Your task to perform on an android device: clear all cookies in the chrome app Image 0: 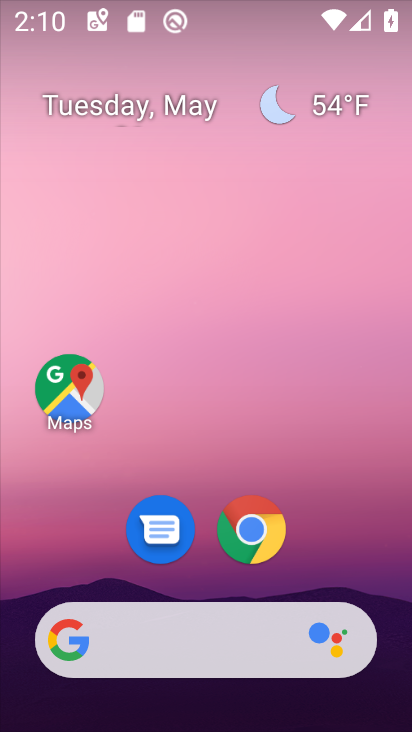
Step 0: drag from (312, 555) to (345, 214)
Your task to perform on an android device: clear all cookies in the chrome app Image 1: 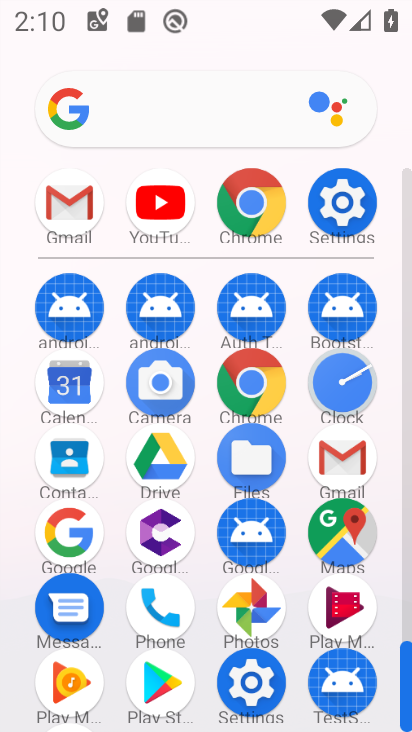
Step 1: click (241, 199)
Your task to perform on an android device: clear all cookies in the chrome app Image 2: 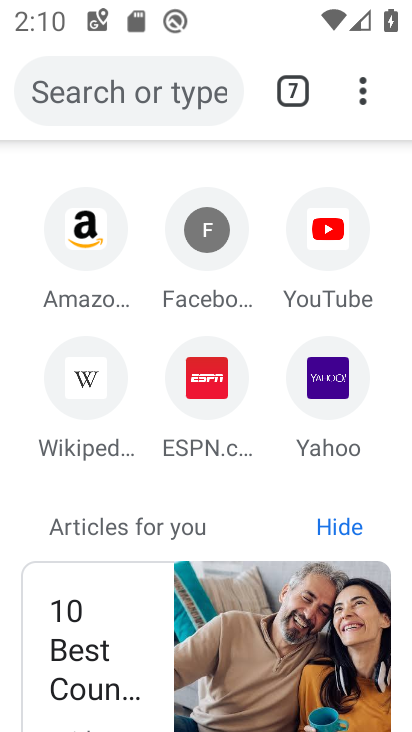
Step 2: click (362, 81)
Your task to perform on an android device: clear all cookies in the chrome app Image 3: 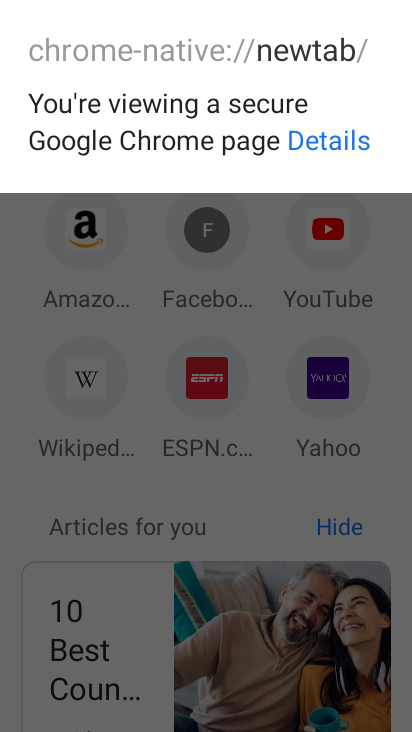
Step 3: click (367, 249)
Your task to perform on an android device: clear all cookies in the chrome app Image 4: 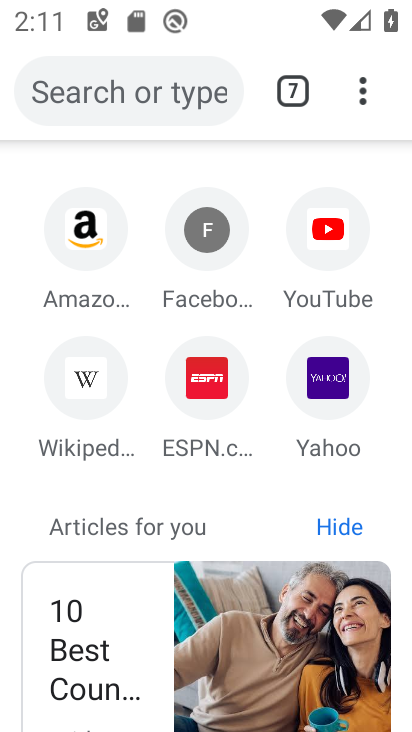
Step 4: click (369, 89)
Your task to perform on an android device: clear all cookies in the chrome app Image 5: 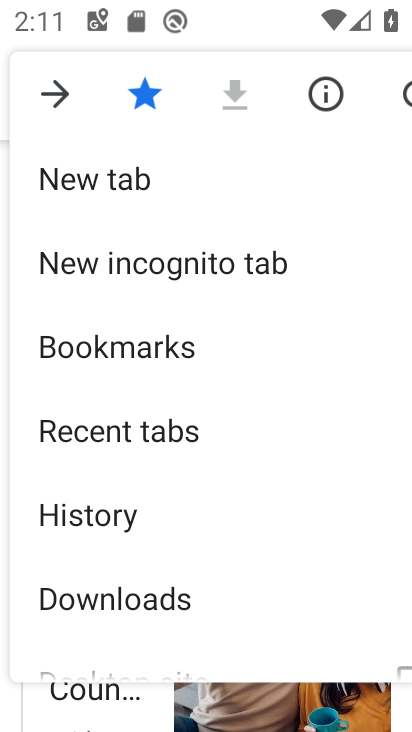
Step 5: drag from (238, 553) to (255, 256)
Your task to perform on an android device: clear all cookies in the chrome app Image 6: 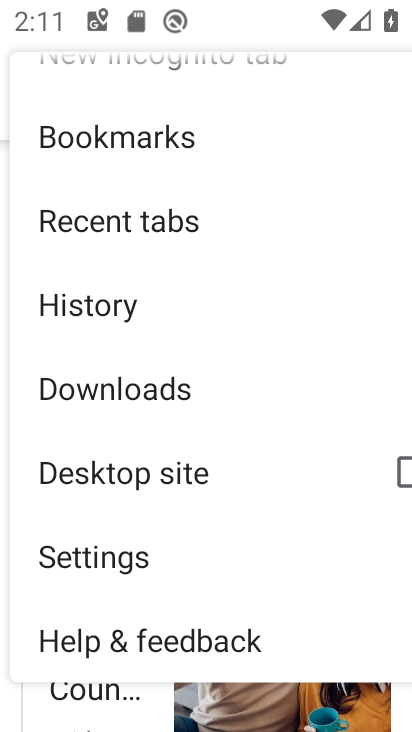
Step 6: click (197, 536)
Your task to perform on an android device: clear all cookies in the chrome app Image 7: 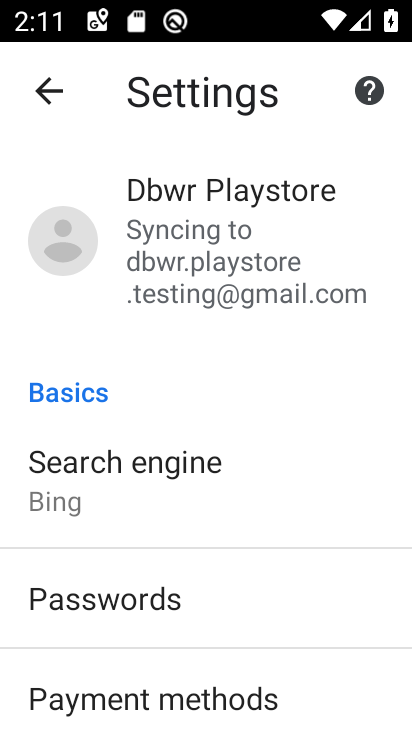
Step 7: drag from (242, 581) to (251, 309)
Your task to perform on an android device: clear all cookies in the chrome app Image 8: 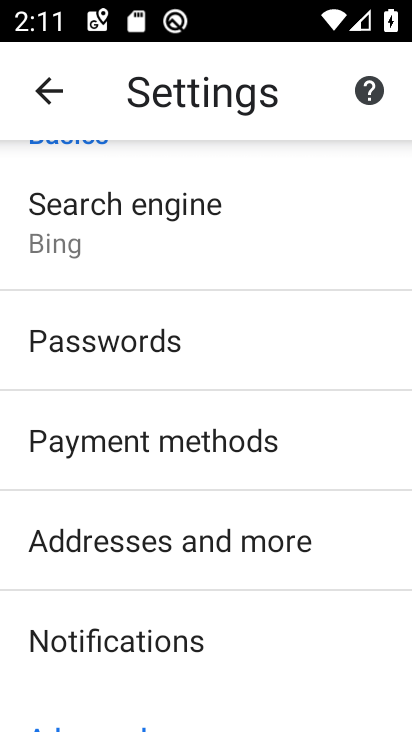
Step 8: drag from (212, 649) to (233, 425)
Your task to perform on an android device: clear all cookies in the chrome app Image 9: 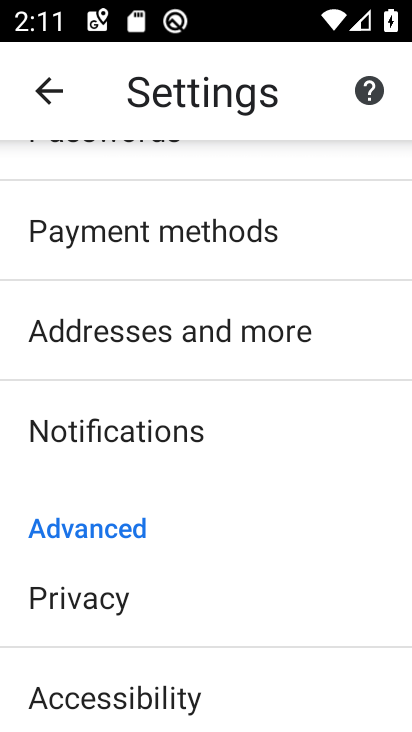
Step 9: drag from (187, 656) to (238, 283)
Your task to perform on an android device: clear all cookies in the chrome app Image 10: 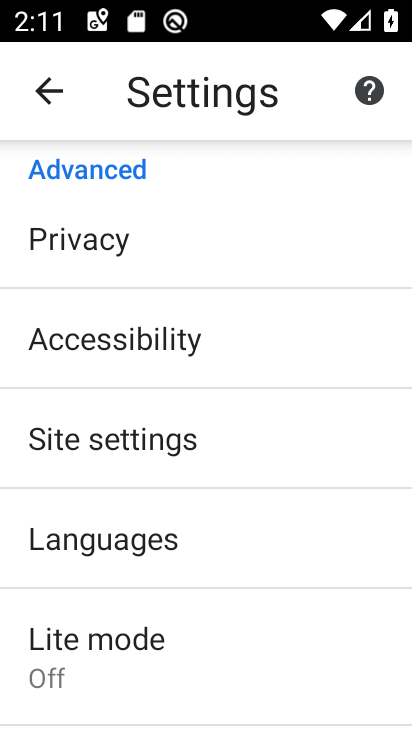
Step 10: click (146, 425)
Your task to perform on an android device: clear all cookies in the chrome app Image 11: 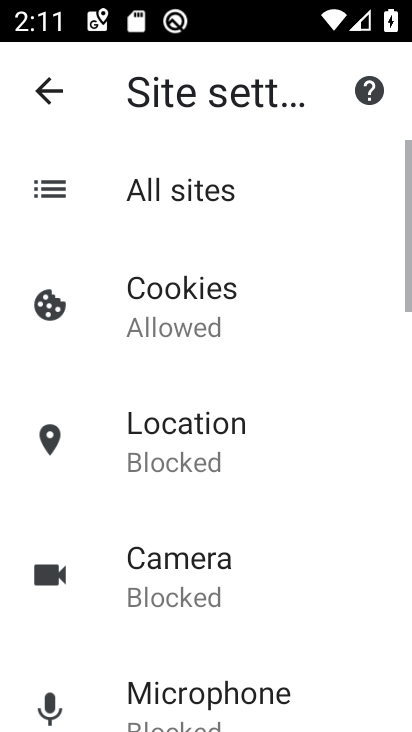
Step 11: click (170, 295)
Your task to perform on an android device: clear all cookies in the chrome app Image 12: 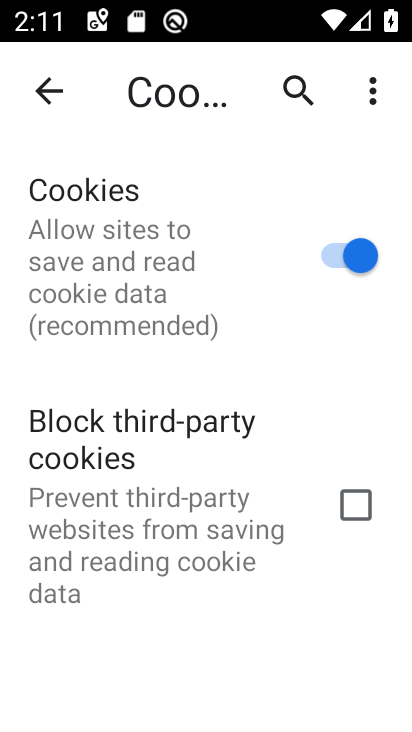
Step 12: click (44, 84)
Your task to perform on an android device: clear all cookies in the chrome app Image 13: 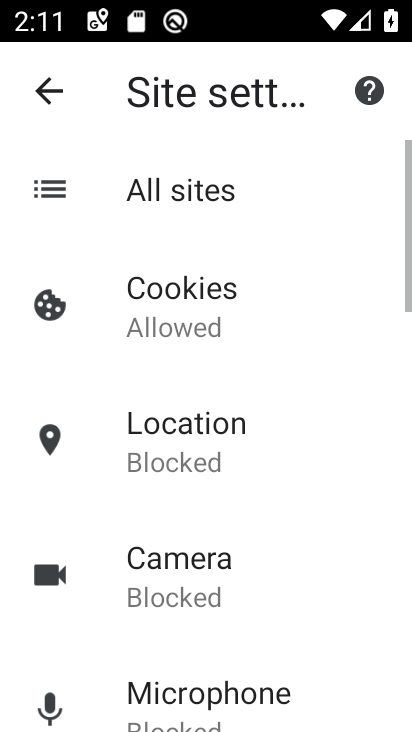
Step 13: click (49, 94)
Your task to perform on an android device: clear all cookies in the chrome app Image 14: 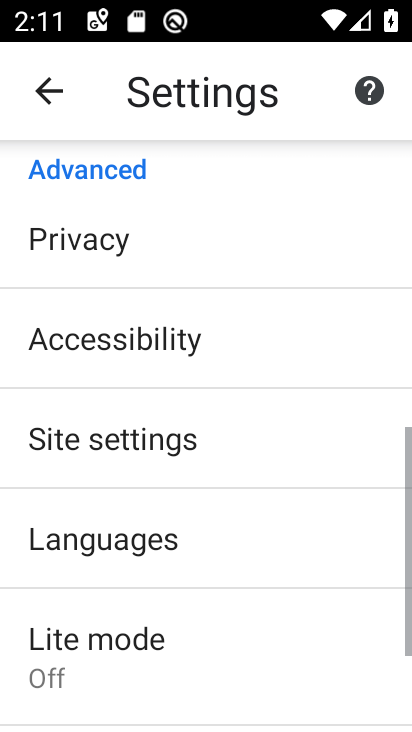
Step 14: drag from (151, 211) to (77, 591)
Your task to perform on an android device: clear all cookies in the chrome app Image 15: 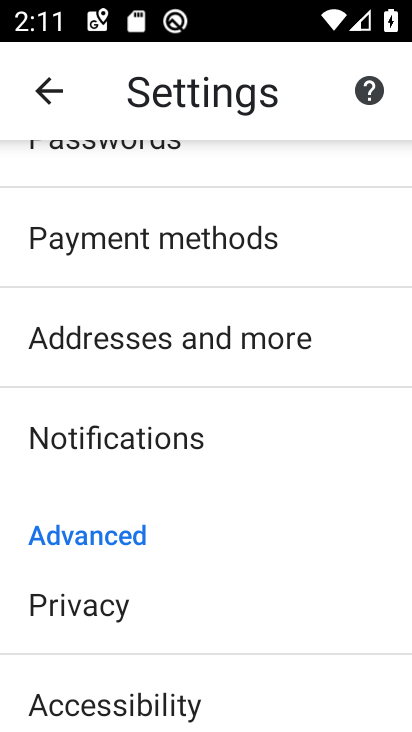
Step 15: drag from (119, 222) to (132, 631)
Your task to perform on an android device: clear all cookies in the chrome app Image 16: 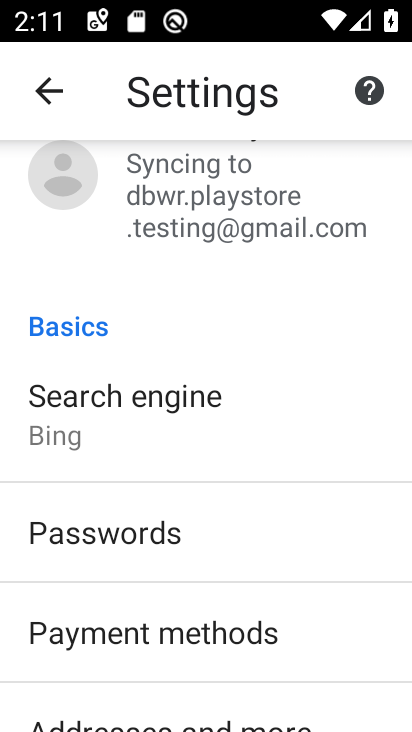
Step 16: drag from (150, 573) to (217, 300)
Your task to perform on an android device: clear all cookies in the chrome app Image 17: 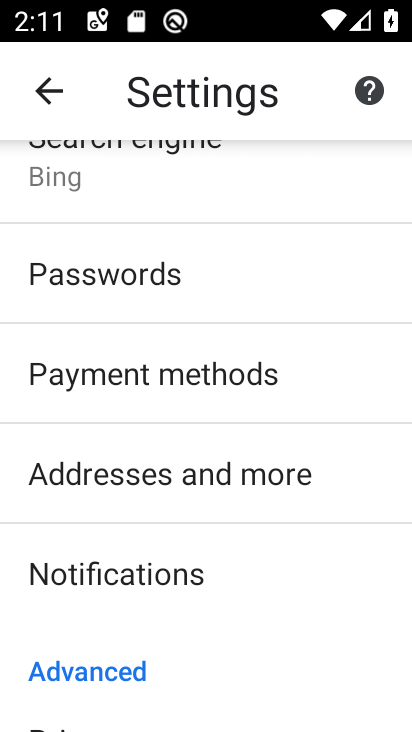
Step 17: drag from (139, 597) to (229, 232)
Your task to perform on an android device: clear all cookies in the chrome app Image 18: 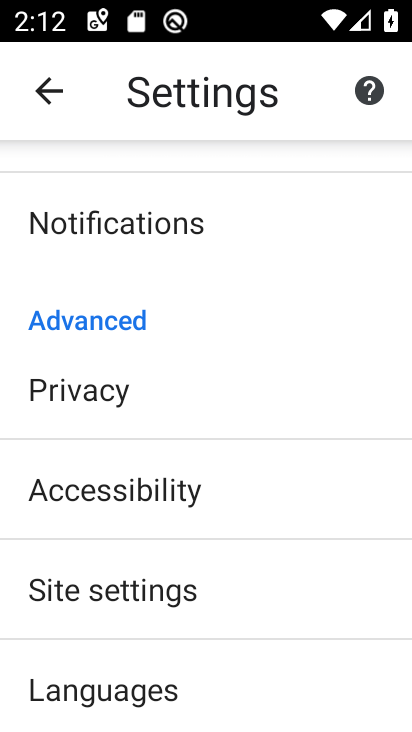
Step 18: click (127, 381)
Your task to perform on an android device: clear all cookies in the chrome app Image 19: 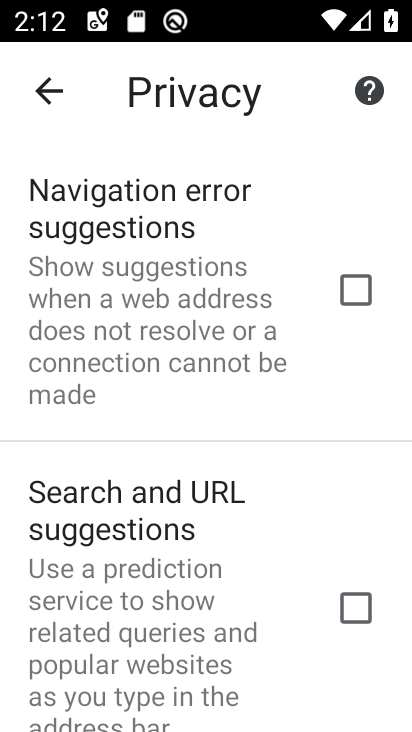
Step 19: drag from (156, 640) to (280, 266)
Your task to perform on an android device: clear all cookies in the chrome app Image 20: 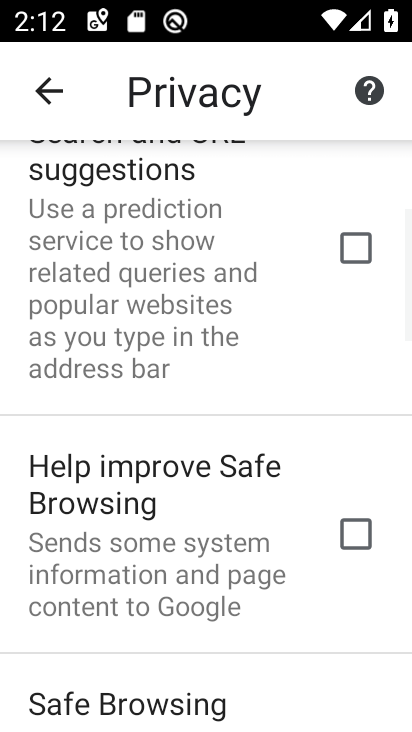
Step 20: drag from (232, 606) to (322, 239)
Your task to perform on an android device: clear all cookies in the chrome app Image 21: 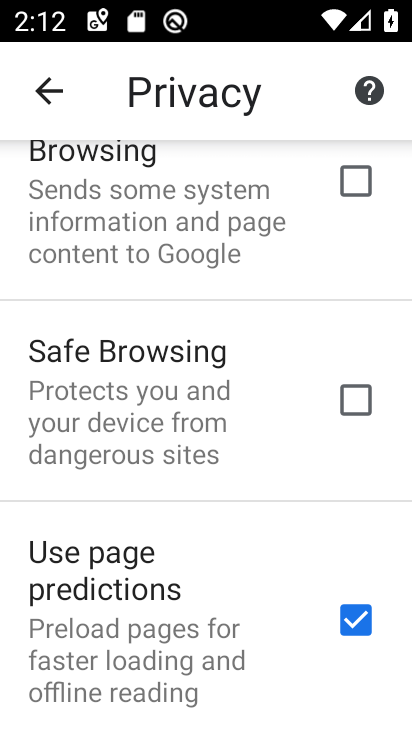
Step 21: drag from (281, 636) to (281, 275)
Your task to perform on an android device: clear all cookies in the chrome app Image 22: 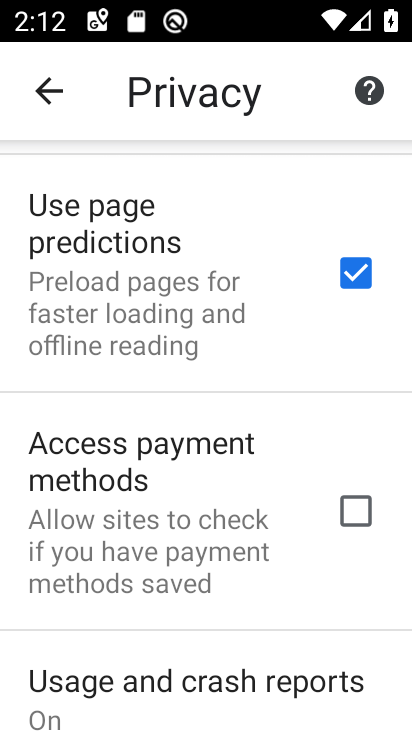
Step 22: drag from (210, 656) to (295, 319)
Your task to perform on an android device: clear all cookies in the chrome app Image 23: 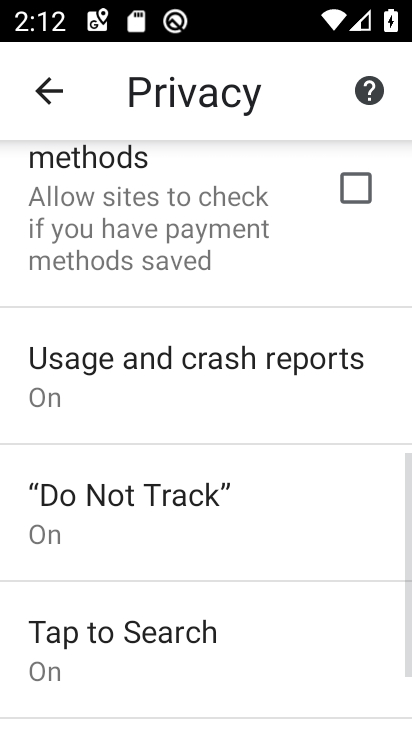
Step 23: drag from (198, 659) to (299, 275)
Your task to perform on an android device: clear all cookies in the chrome app Image 24: 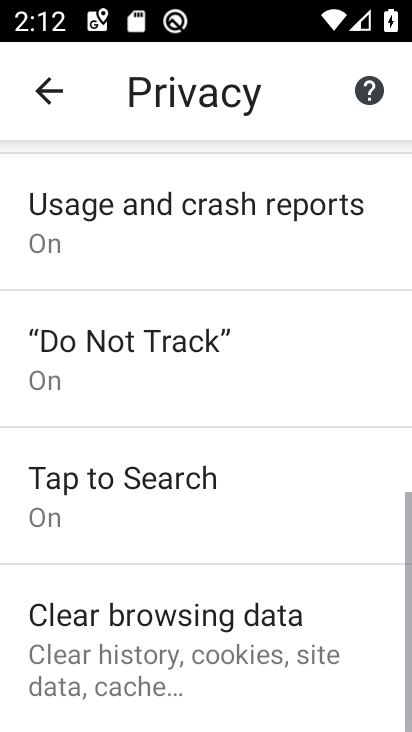
Step 24: drag from (177, 650) to (195, 522)
Your task to perform on an android device: clear all cookies in the chrome app Image 25: 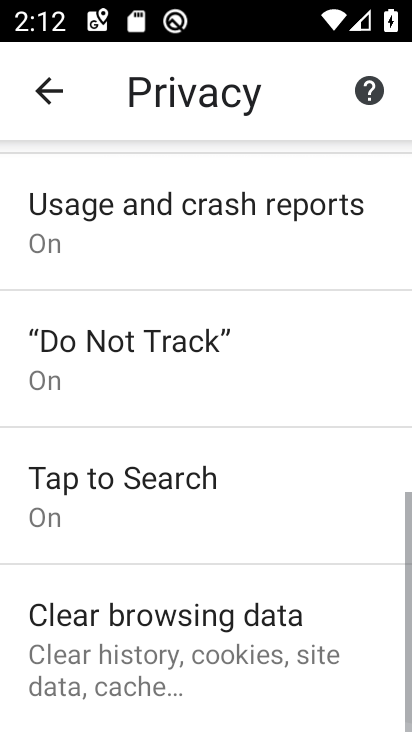
Step 25: click (160, 654)
Your task to perform on an android device: clear all cookies in the chrome app Image 26: 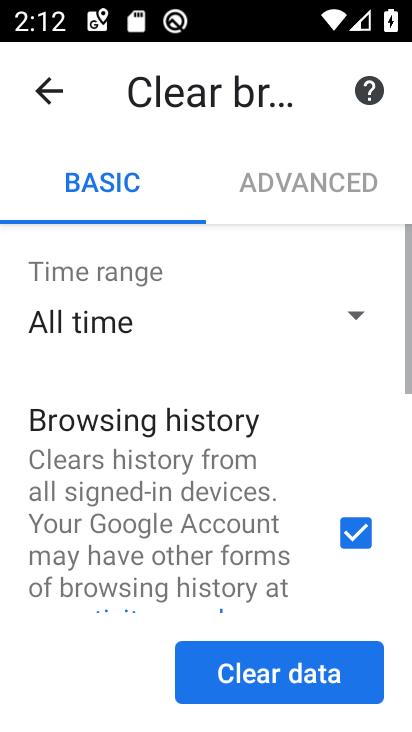
Step 26: click (272, 666)
Your task to perform on an android device: clear all cookies in the chrome app Image 27: 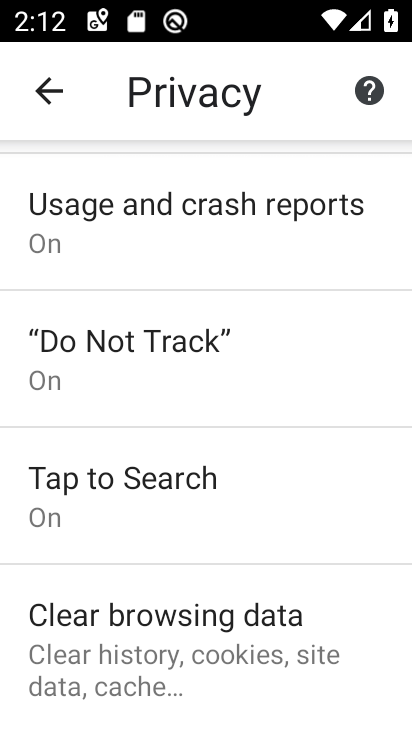
Step 27: task complete